Your task to perform on an android device: Open Android settings Image 0: 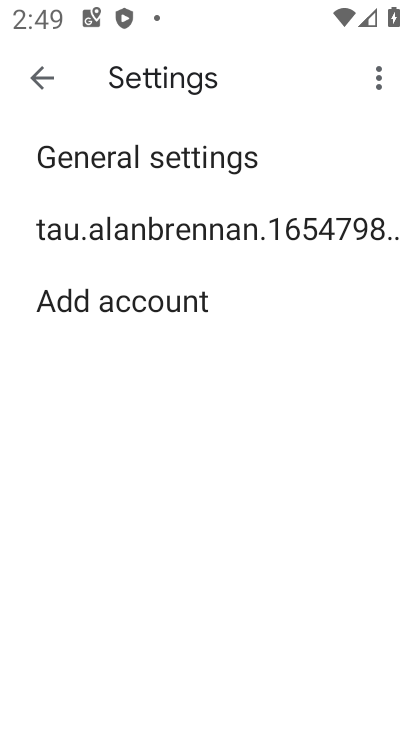
Step 0: press home button
Your task to perform on an android device: Open Android settings Image 1: 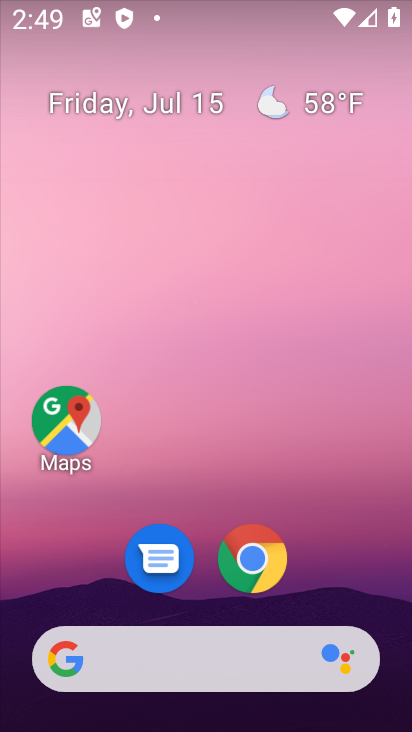
Step 1: drag from (356, 574) to (350, 88)
Your task to perform on an android device: Open Android settings Image 2: 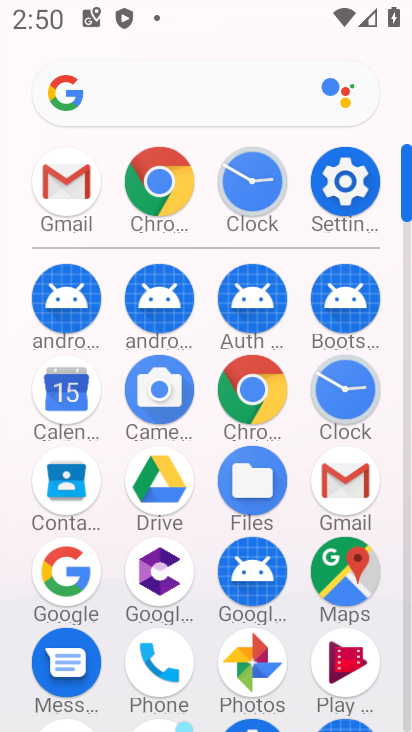
Step 2: click (364, 193)
Your task to perform on an android device: Open Android settings Image 3: 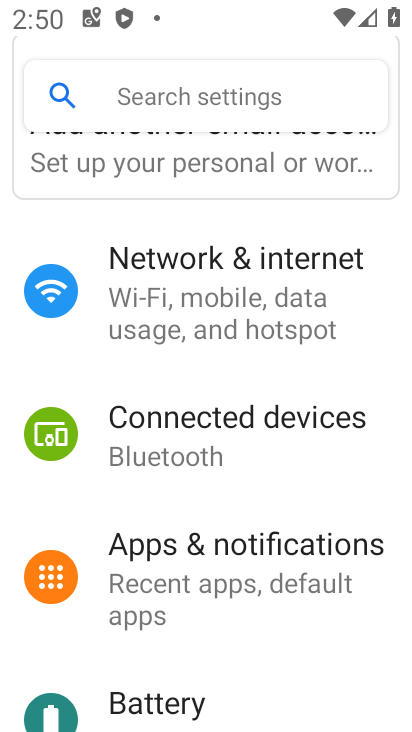
Step 3: drag from (383, 471) to (381, 361)
Your task to perform on an android device: Open Android settings Image 4: 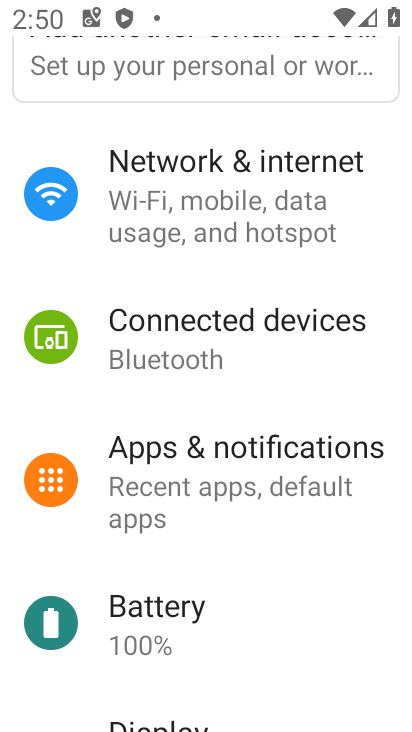
Step 4: drag from (369, 516) to (369, 398)
Your task to perform on an android device: Open Android settings Image 5: 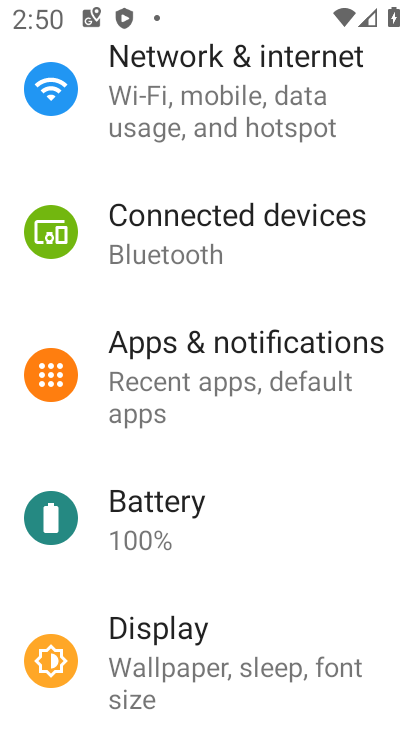
Step 5: drag from (356, 504) to (369, 420)
Your task to perform on an android device: Open Android settings Image 6: 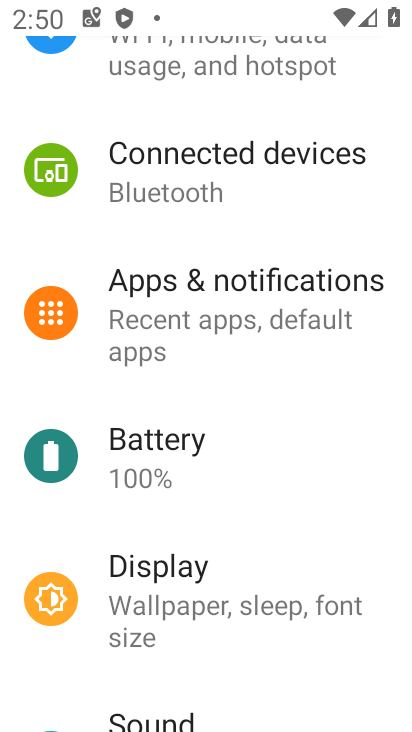
Step 6: drag from (370, 553) to (379, 371)
Your task to perform on an android device: Open Android settings Image 7: 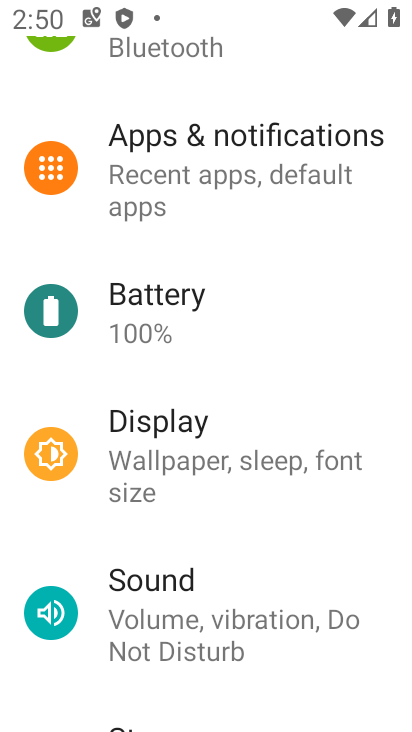
Step 7: drag from (324, 562) to (349, 291)
Your task to perform on an android device: Open Android settings Image 8: 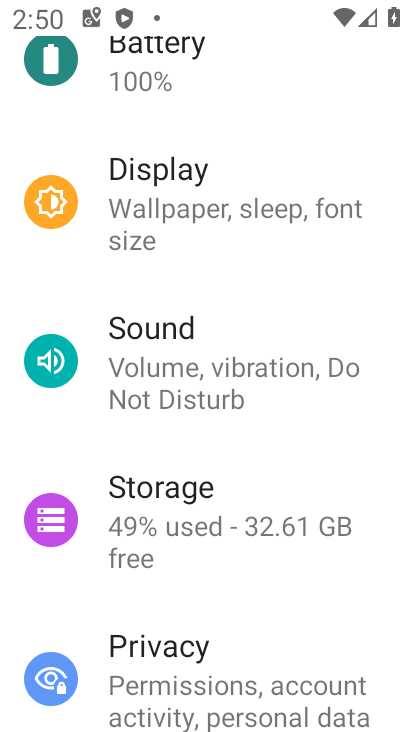
Step 8: drag from (338, 438) to (339, 327)
Your task to perform on an android device: Open Android settings Image 9: 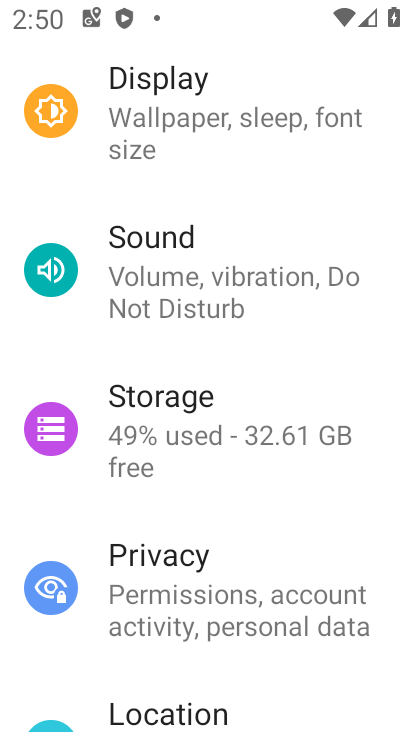
Step 9: drag from (378, 510) to (382, 359)
Your task to perform on an android device: Open Android settings Image 10: 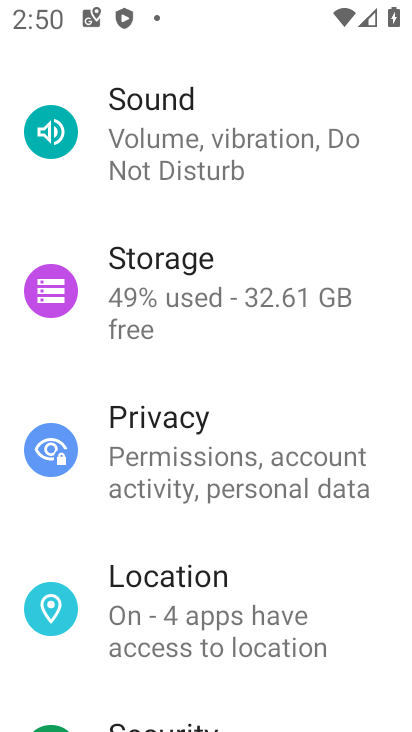
Step 10: drag from (363, 545) to (364, 411)
Your task to perform on an android device: Open Android settings Image 11: 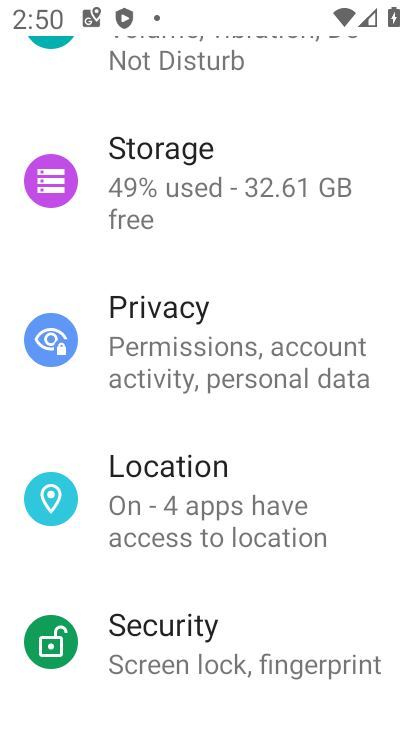
Step 11: drag from (359, 580) to (361, 448)
Your task to perform on an android device: Open Android settings Image 12: 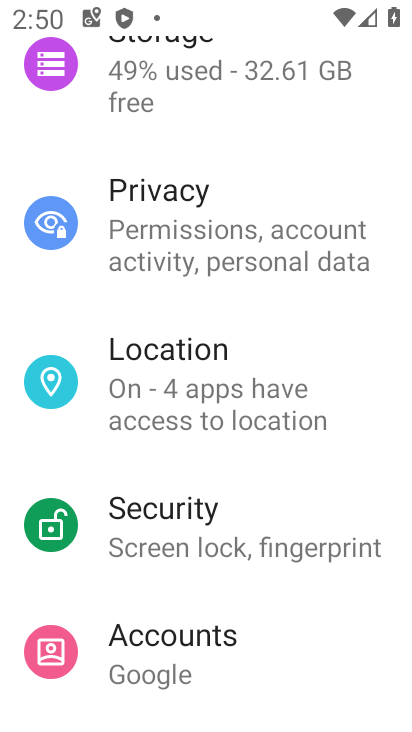
Step 12: drag from (360, 609) to (363, 489)
Your task to perform on an android device: Open Android settings Image 13: 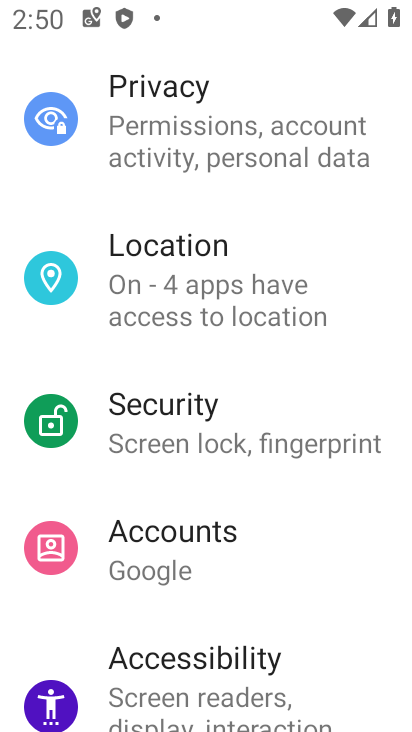
Step 13: drag from (355, 606) to (358, 420)
Your task to perform on an android device: Open Android settings Image 14: 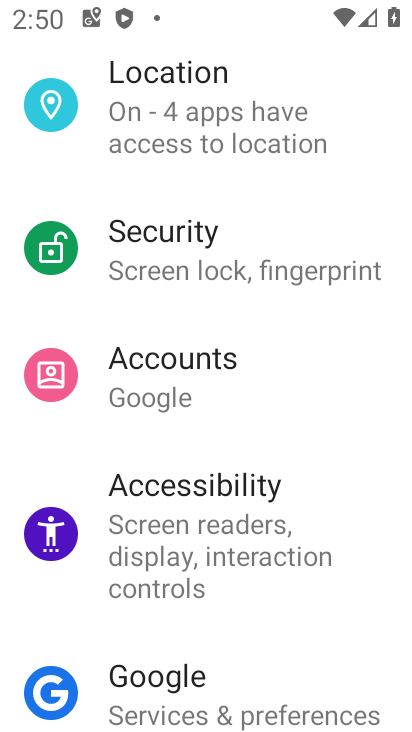
Step 14: drag from (340, 586) to (358, 344)
Your task to perform on an android device: Open Android settings Image 15: 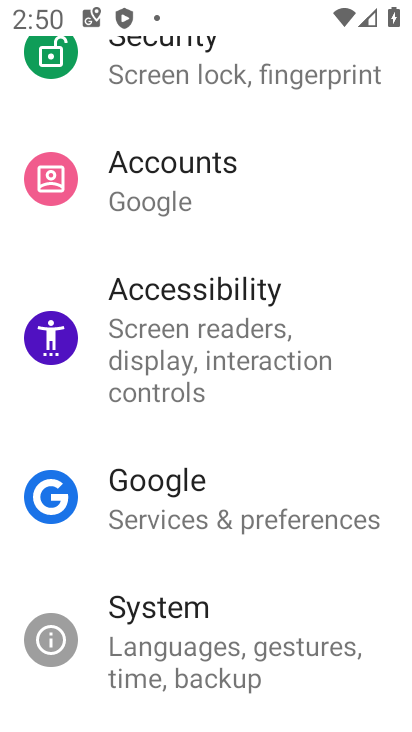
Step 15: click (286, 638)
Your task to perform on an android device: Open Android settings Image 16: 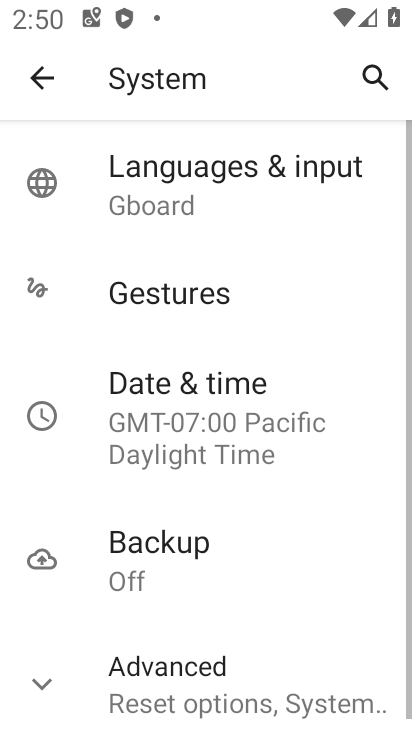
Step 16: click (274, 674)
Your task to perform on an android device: Open Android settings Image 17: 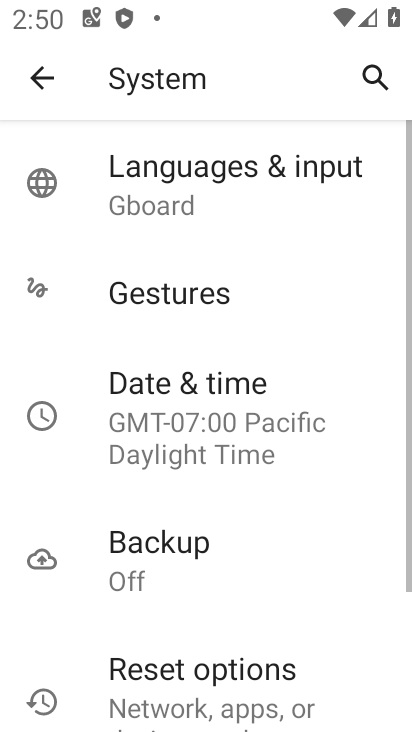
Step 17: task complete